Your task to perform on an android device: turn on showing notifications on the lock screen Image 0: 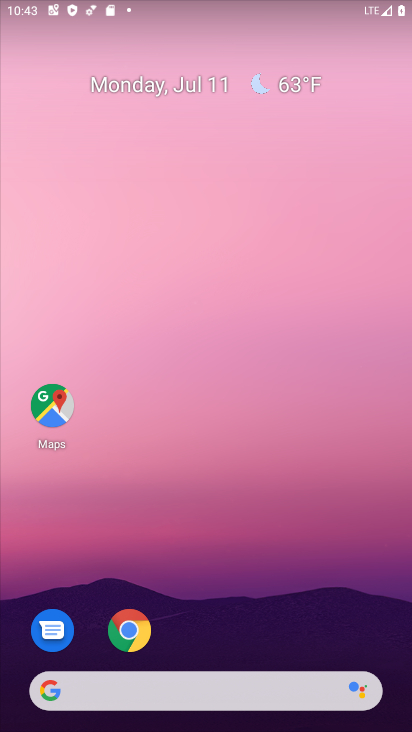
Step 0: drag from (364, 636) to (348, 217)
Your task to perform on an android device: turn on showing notifications on the lock screen Image 1: 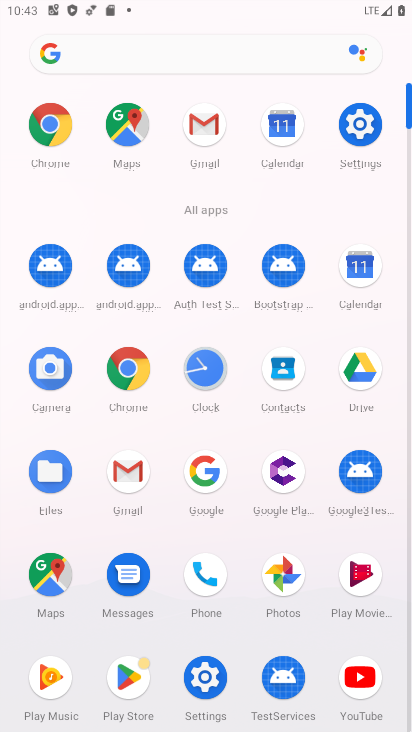
Step 1: click (205, 676)
Your task to perform on an android device: turn on showing notifications on the lock screen Image 2: 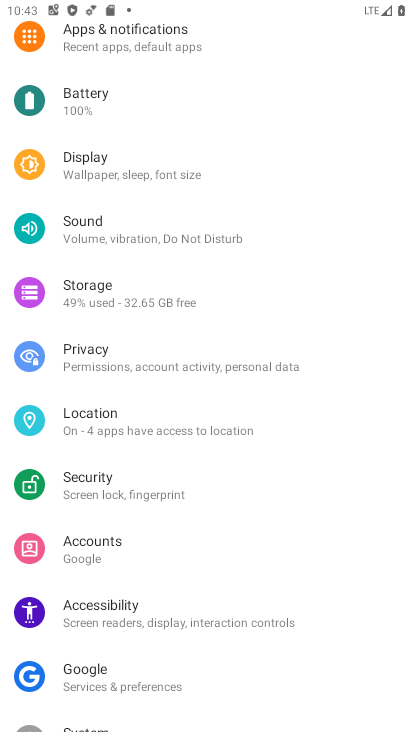
Step 2: click (140, 42)
Your task to perform on an android device: turn on showing notifications on the lock screen Image 3: 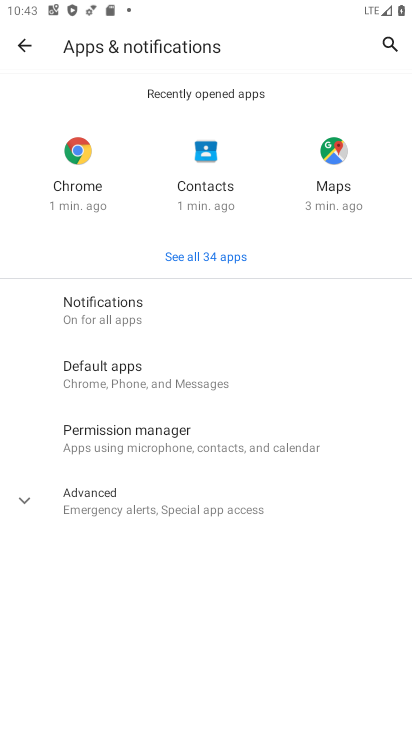
Step 3: click (90, 302)
Your task to perform on an android device: turn on showing notifications on the lock screen Image 4: 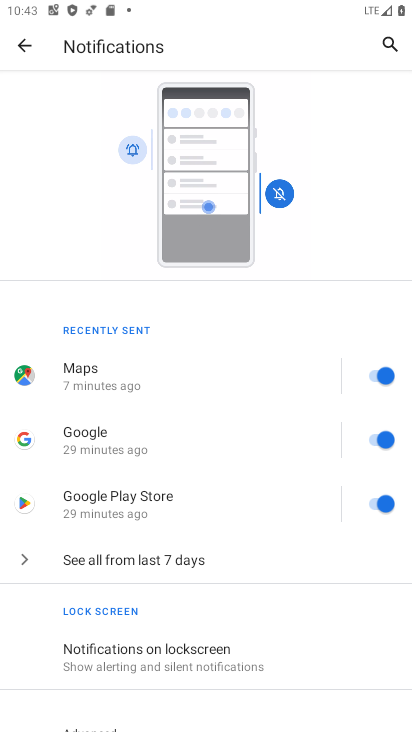
Step 4: drag from (280, 614) to (275, 283)
Your task to perform on an android device: turn on showing notifications on the lock screen Image 5: 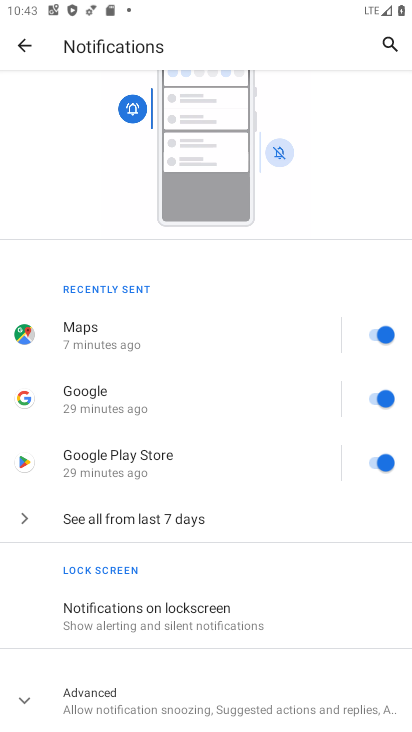
Step 5: click (127, 602)
Your task to perform on an android device: turn on showing notifications on the lock screen Image 6: 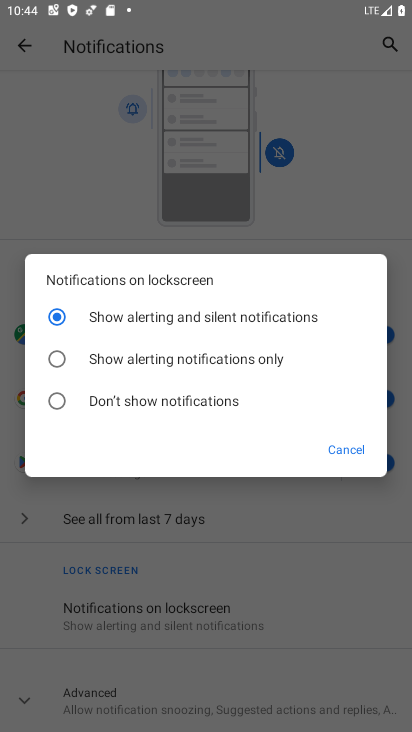
Step 6: task complete